Your task to perform on an android device: change notifications settings Image 0: 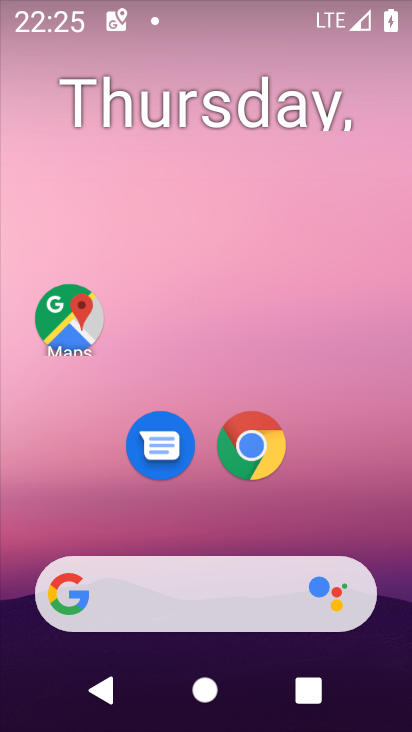
Step 0: drag from (201, 498) to (213, 212)
Your task to perform on an android device: change notifications settings Image 1: 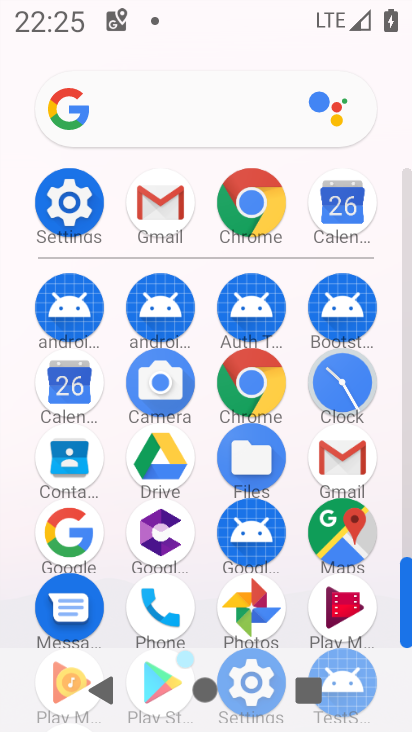
Step 1: drag from (190, 344) to (211, 148)
Your task to perform on an android device: change notifications settings Image 2: 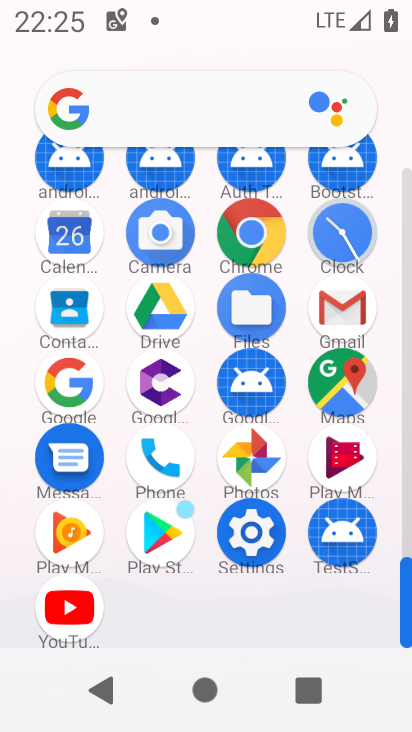
Step 2: click (260, 545)
Your task to perform on an android device: change notifications settings Image 3: 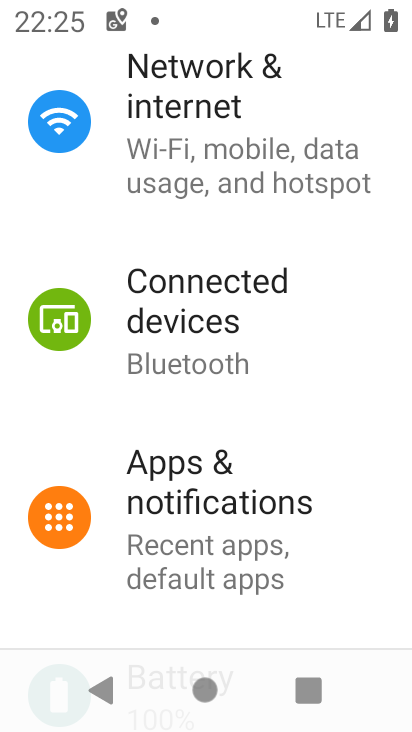
Step 3: click (271, 558)
Your task to perform on an android device: change notifications settings Image 4: 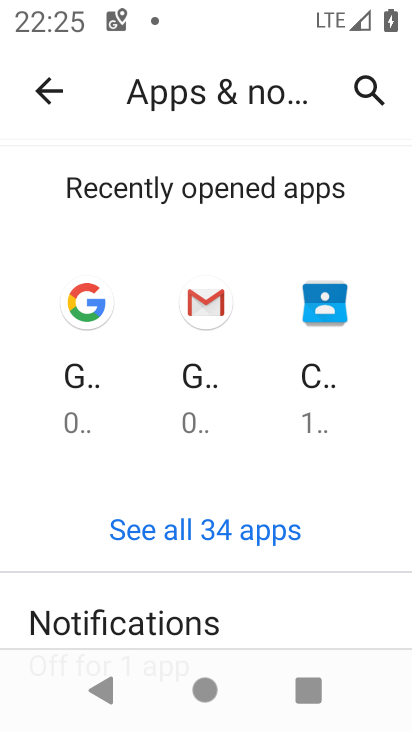
Step 4: drag from (278, 574) to (248, 244)
Your task to perform on an android device: change notifications settings Image 5: 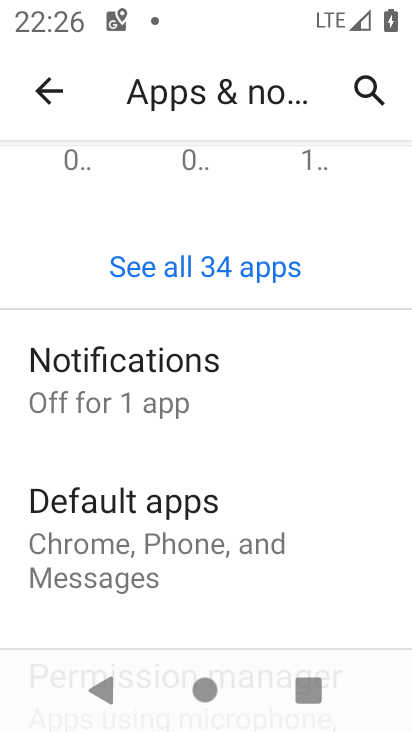
Step 5: drag from (209, 562) to (264, 235)
Your task to perform on an android device: change notifications settings Image 6: 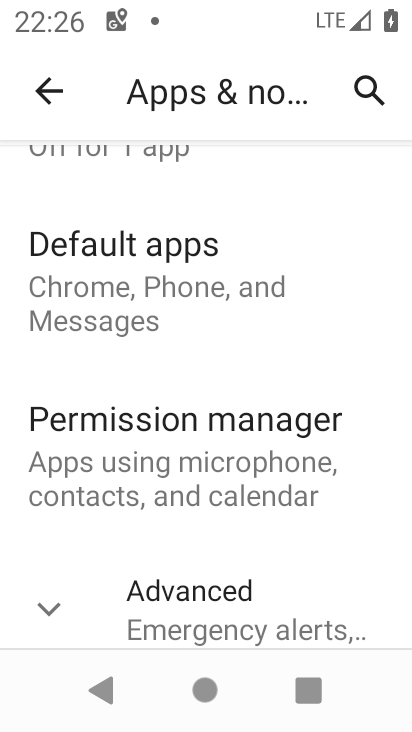
Step 6: drag from (242, 230) to (240, 658)
Your task to perform on an android device: change notifications settings Image 7: 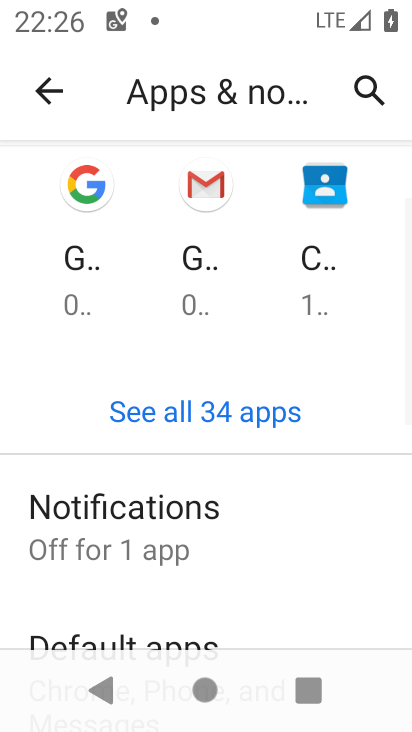
Step 7: click (176, 554)
Your task to perform on an android device: change notifications settings Image 8: 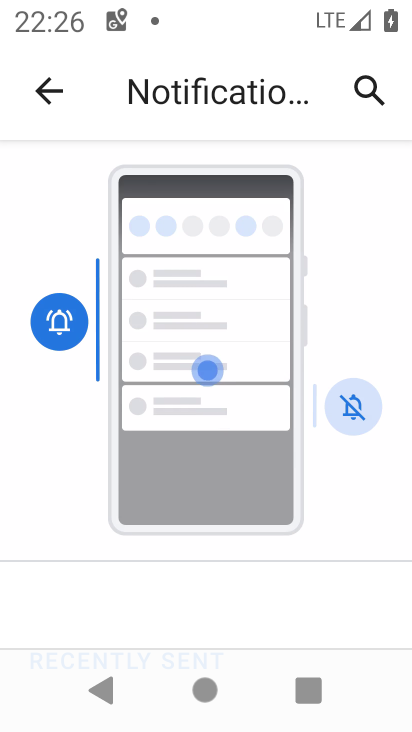
Step 8: drag from (230, 584) to (244, 266)
Your task to perform on an android device: change notifications settings Image 9: 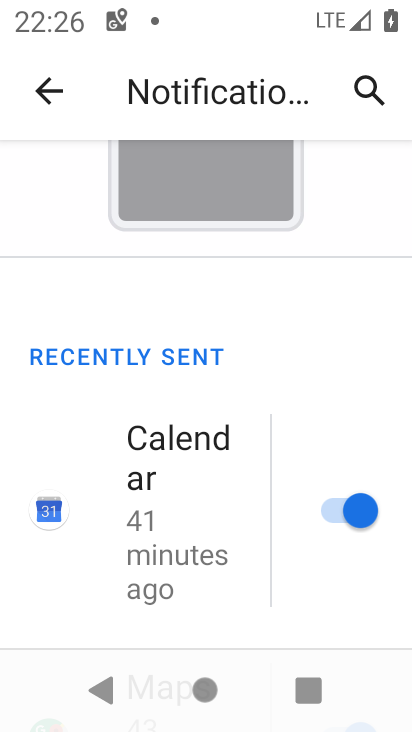
Step 9: drag from (287, 594) to (286, 98)
Your task to perform on an android device: change notifications settings Image 10: 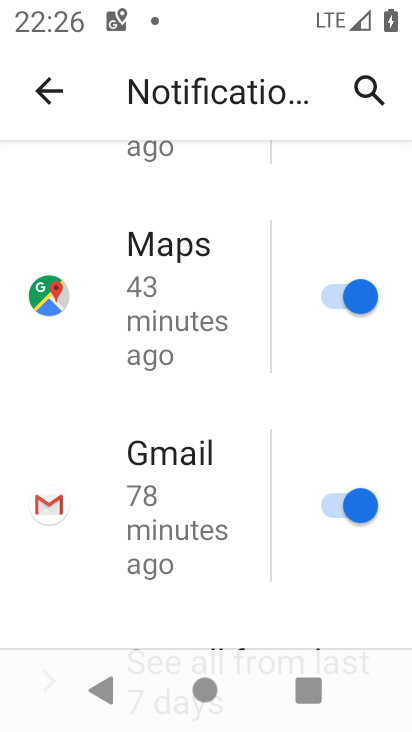
Step 10: drag from (310, 430) to (292, 147)
Your task to perform on an android device: change notifications settings Image 11: 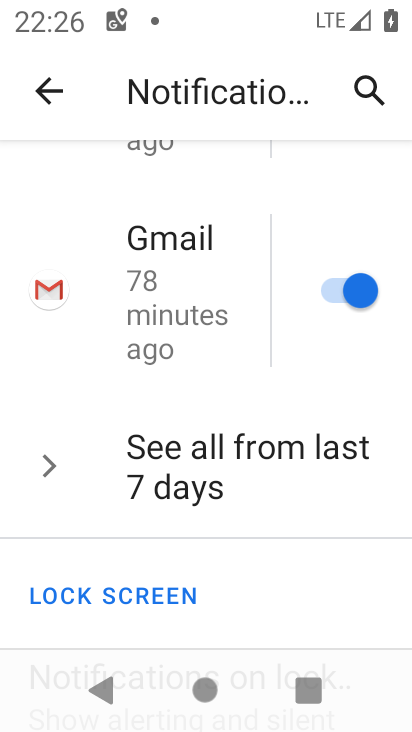
Step 11: drag from (260, 508) to (262, 209)
Your task to perform on an android device: change notifications settings Image 12: 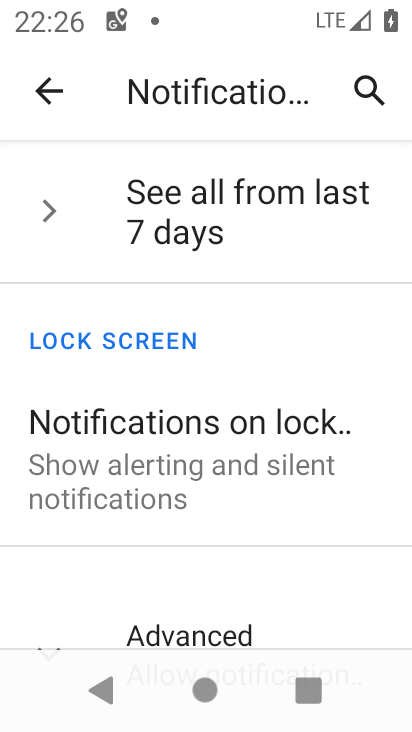
Step 12: drag from (230, 230) to (246, 576)
Your task to perform on an android device: change notifications settings Image 13: 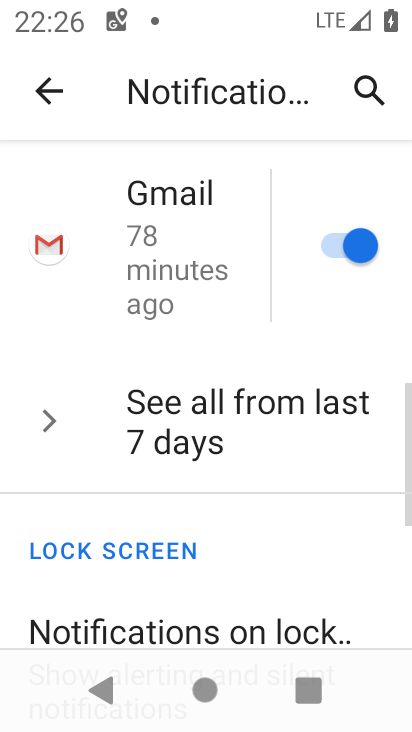
Step 13: drag from (215, 332) to (281, 645)
Your task to perform on an android device: change notifications settings Image 14: 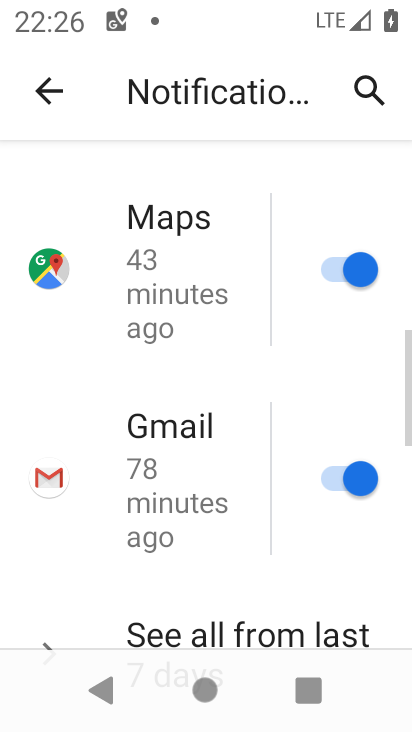
Step 14: drag from (267, 365) to (284, 581)
Your task to perform on an android device: change notifications settings Image 15: 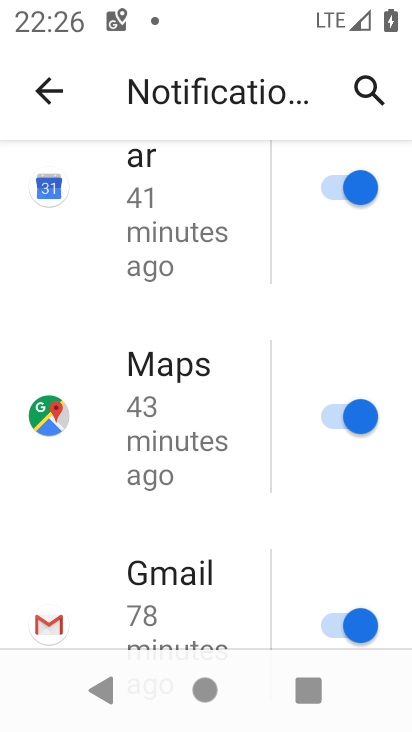
Step 15: click (345, 206)
Your task to perform on an android device: change notifications settings Image 16: 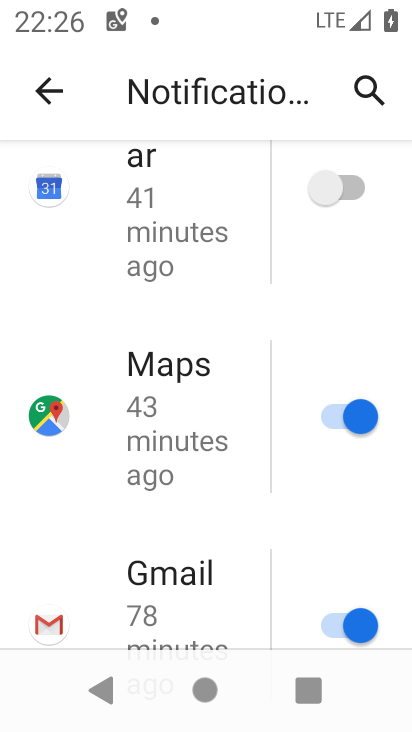
Step 16: task complete